Your task to perform on an android device: Turn on the flashlight Image 0: 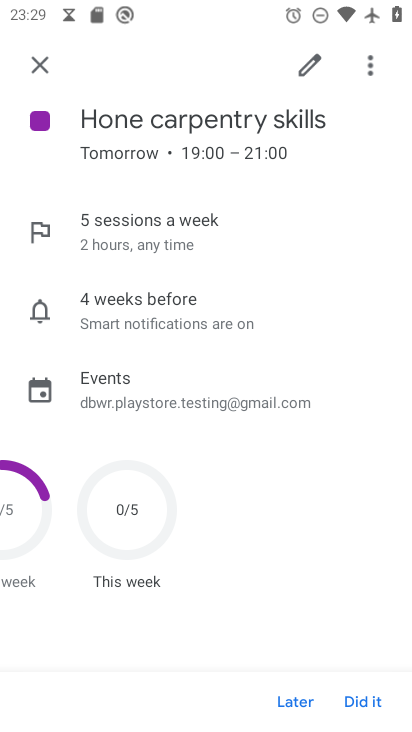
Step 0: press home button
Your task to perform on an android device: Turn on the flashlight Image 1: 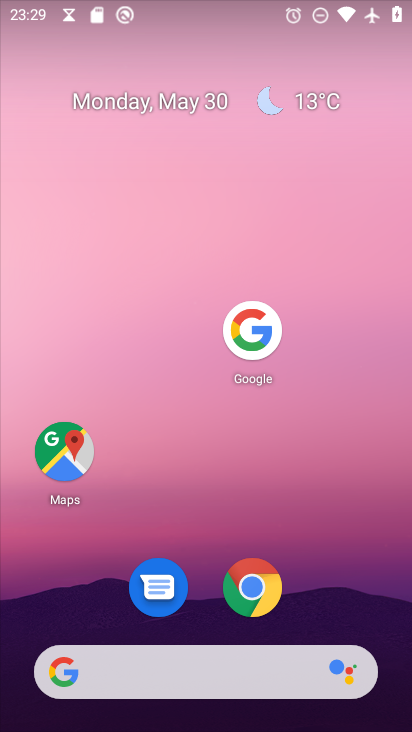
Step 1: task complete